Your task to perform on an android device: Go to network settings Image 0: 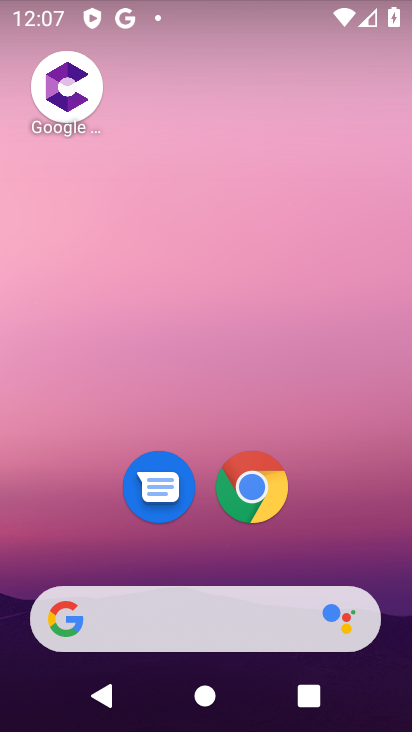
Step 0: drag from (322, 555) to (273, 51)
Your task to perform on an android device: Go to network settings Image 1: 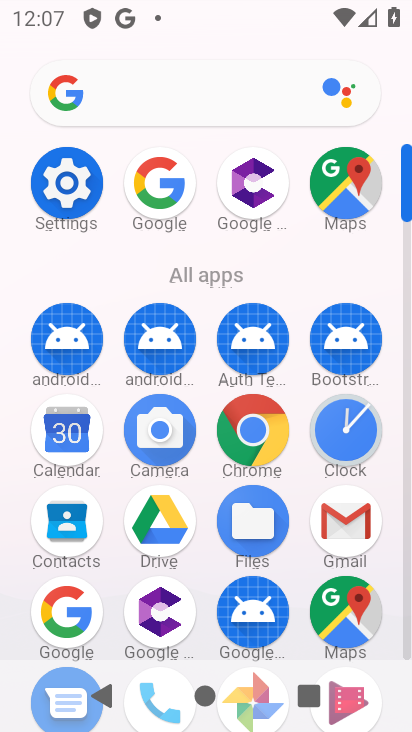
Step 1: click (68, 183)
Your task to perform on an android device: Go to network settings Image 2: 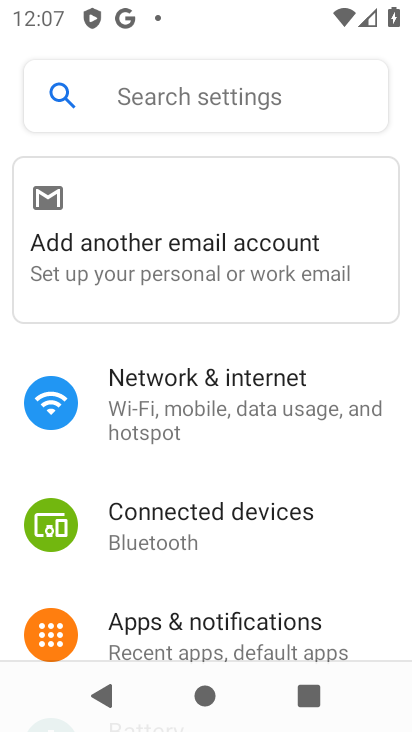
Step 2: drag from (175, 479) to (182, 346)
Your task to perform on an android device: Go to network settings Image 3: 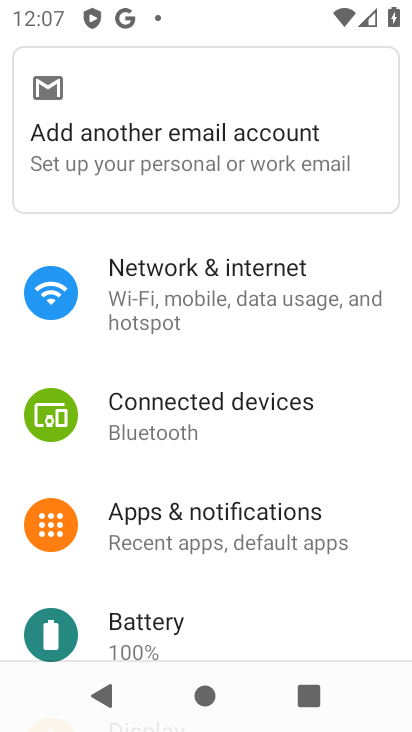
Step 3: click (216, 290)
Your task to perform on an android device: Go to network settings Image 4: 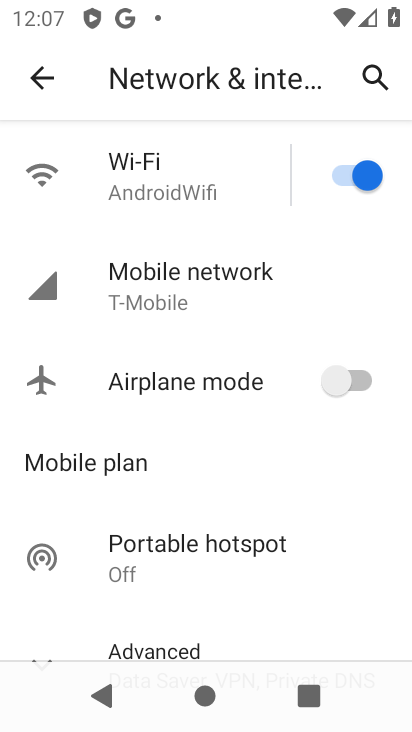
Step 4: click (176, 201)
Your task to perform on an android device: Go to network settings Image 5: 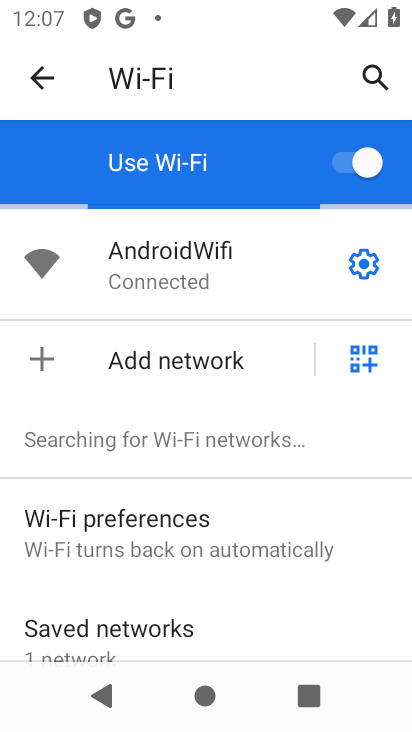
Step 5: click (362, 266)
Your task to perform on an android device: Go to network settings Image 6: 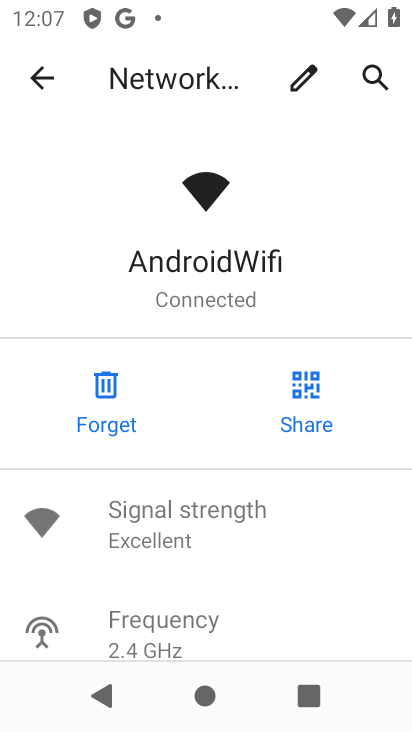
Step 6: task complete